Your task to perform on an android device: turn off picture-in-picture Image 0: 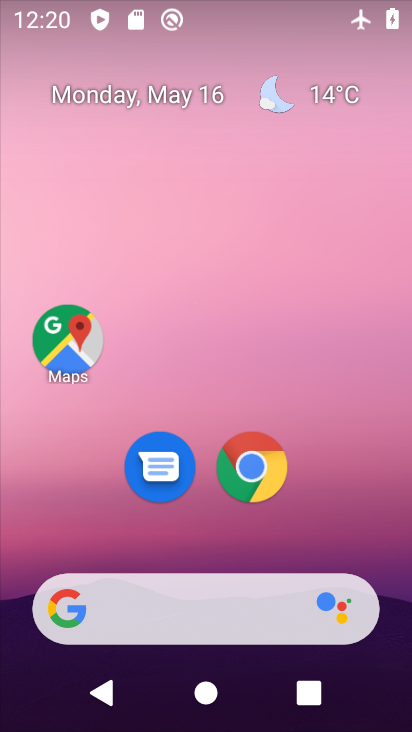
Step 0: drag from (287, 539) to (346, 82)
Your task to perform on an android device: turn off picture-in-picture Image 1: 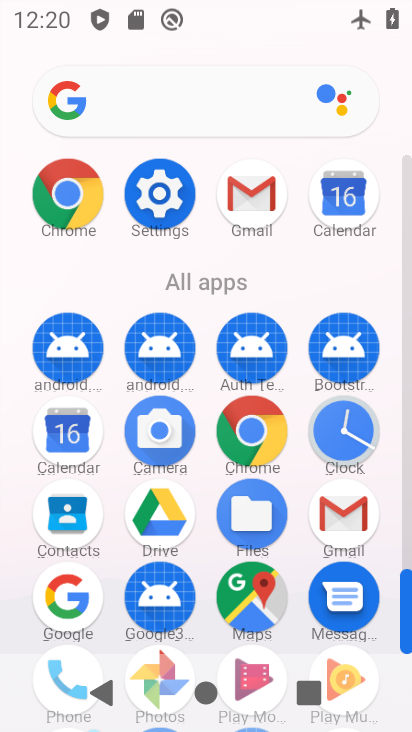
Step 1: click (145, 191)
Your task to perform on an android device: turn off picture-in-picture Image 2: 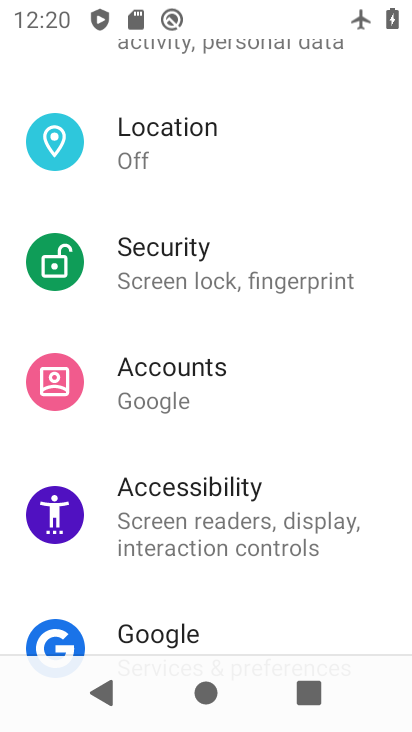
Step 2: drag from (245, 250) to (212, 633)
Your task to perform on an android device: turn off picture-in-picture Image 3: 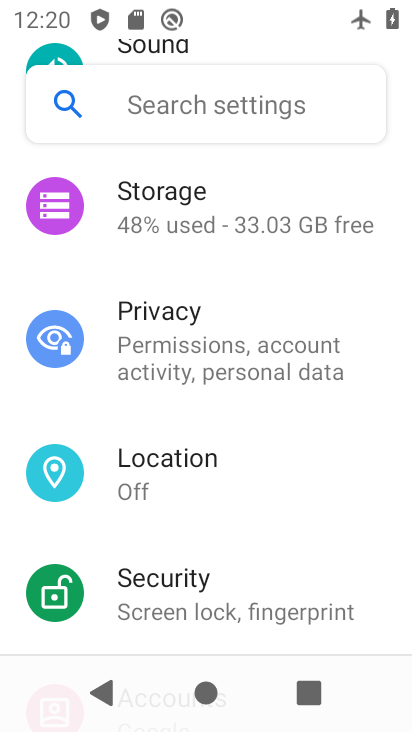
Step 3: drag from (210, 184) to (168, 582)
Your task to perform on an android device: turn off picture-in-picture Image 4: 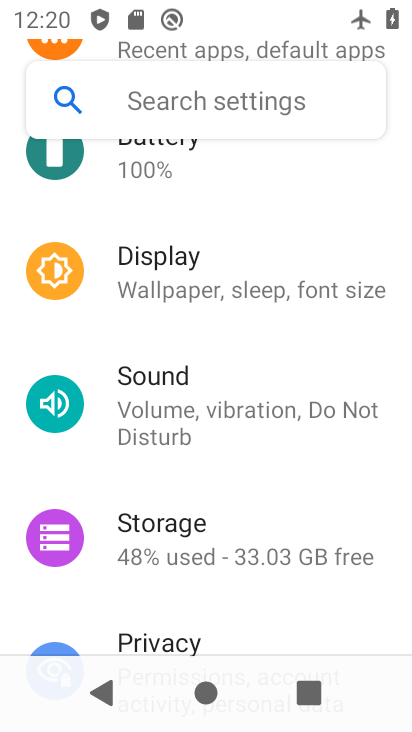
Step 4: drag from (216, 247) to (156, 625)
Your task to perform on an android device: turn off picture-in-picture Image 5: 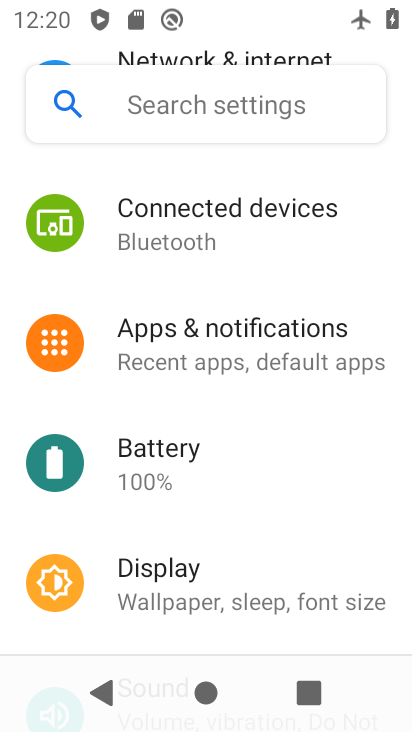
Step 5: drag from (216, 226) to (171, 573)
Your task to perform on an android device: turn off picture-in-picture Image 6: 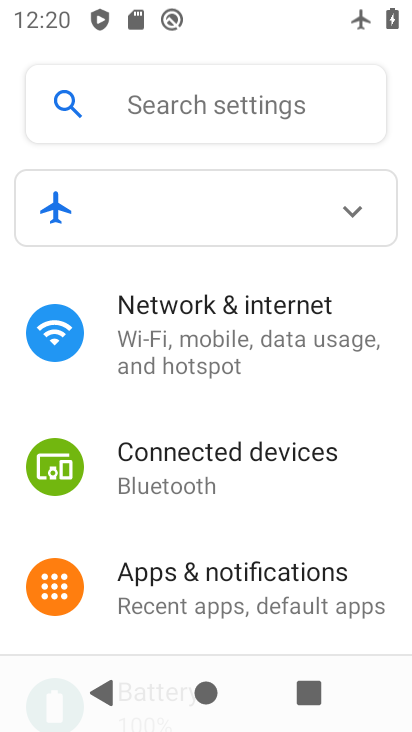
Step 6: click (170, 565)
Your task to perform on an android device: turn off picture-in-picture Image 7: 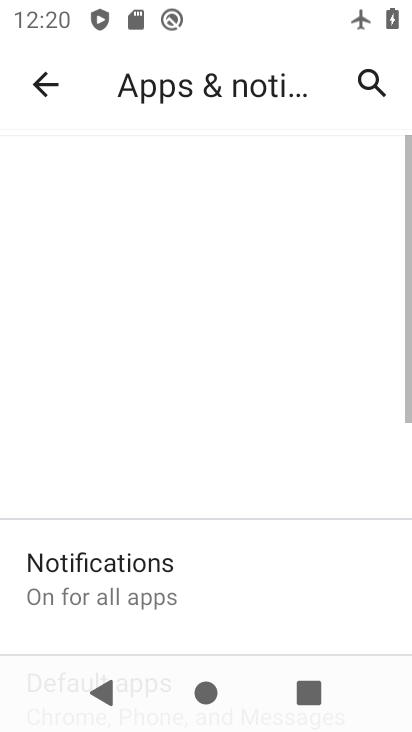
Step 7: drag from (206, 546) to (328, 87)
Your task to perform on an android device: turn off picture-in-picture Image 8: 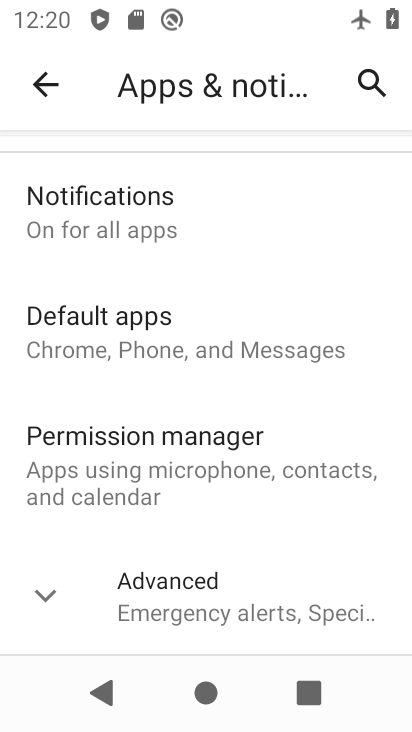
Step 8: click (134, 585)
Your task to perform on an android device: turn off picture-in-picture Image 9: 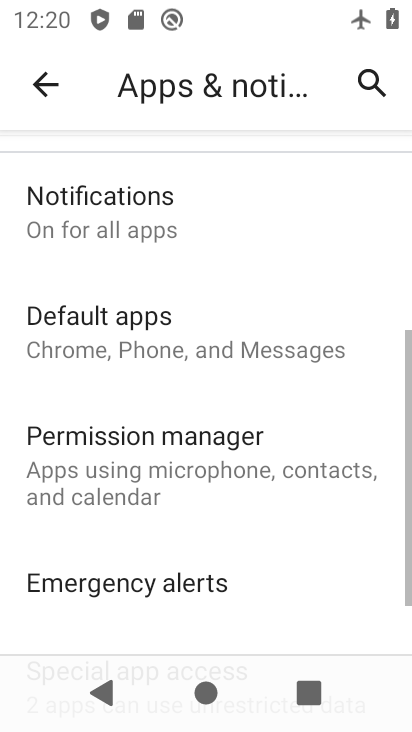
Step 9: drag from (187, 620) to (277, 95)
Your task to perform on an android device: turn off picture-in-picture Image 10: 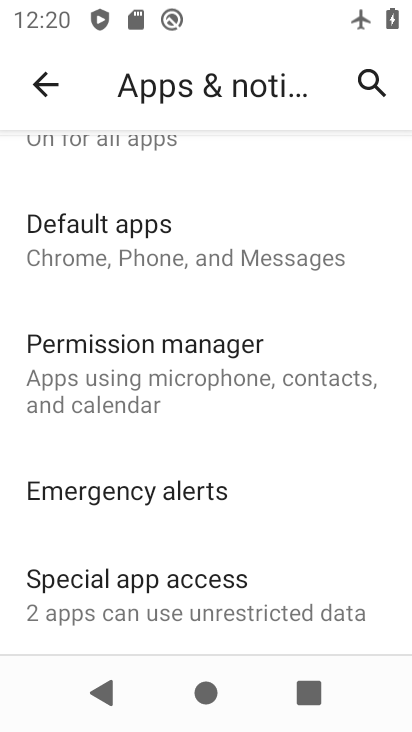
Step 10: click (77, 587)
Your task to perform on an android device: turn off picture-in-picture Image 11: 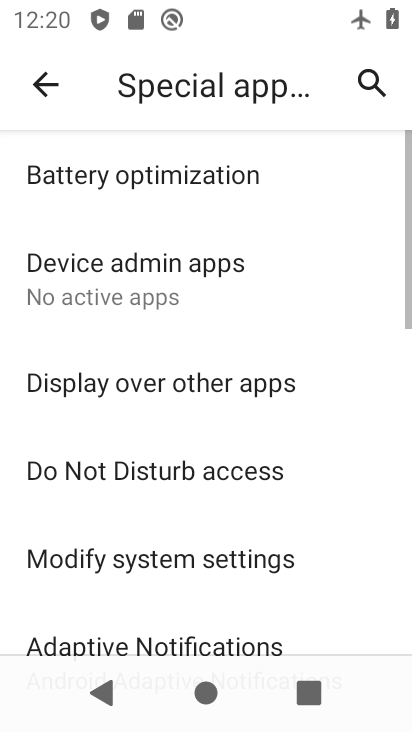
Step 11: drag from (161, 581) to (242, 284)
Your task to perform on an android device: turn off picture-in-picture Image 12: 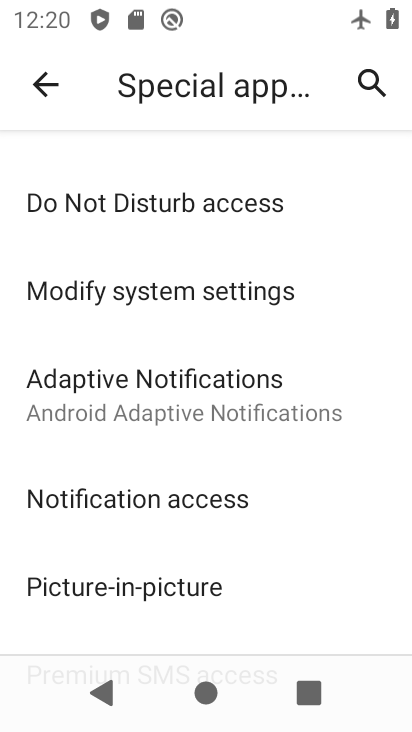
Step 12: click (94, 591)
Your task to perform on an android device: turn off picture-in-picture Image 13: 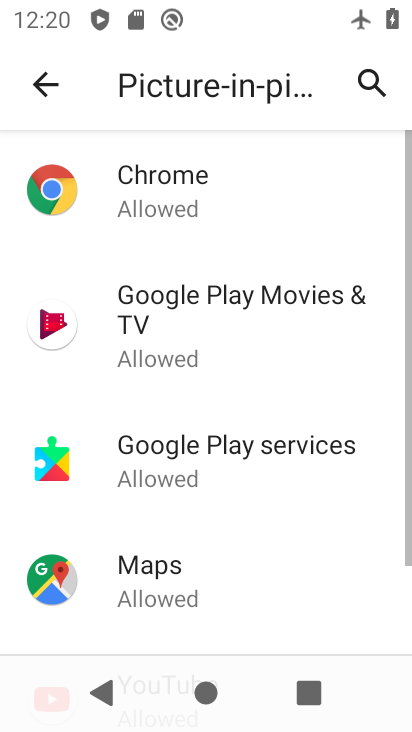
Step 13: drag from (197, 576) to (285, 199)
Your task to perform on an android device: turn off picture-in-picture Image 14: 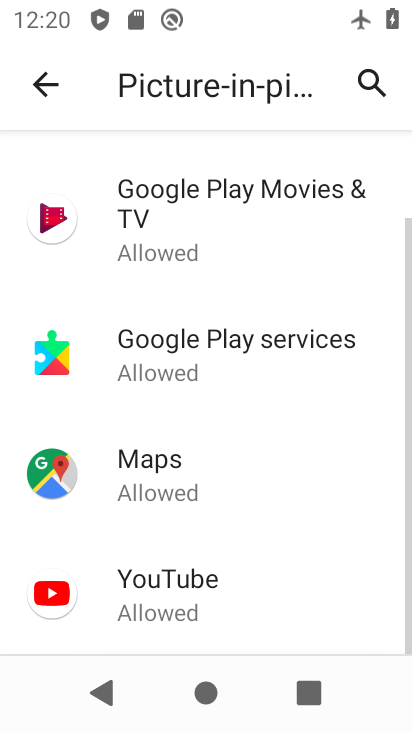
Step 14: click (74, 609)
Your task to perform on an android device: turn off picture-in-picture Image 15: 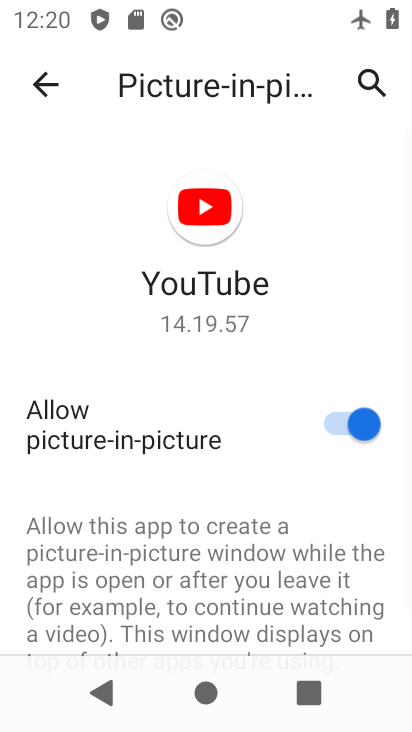
Step 15: click (346, 425)
Your task to perform on an android device: turn off picture-in-picture Image 16: 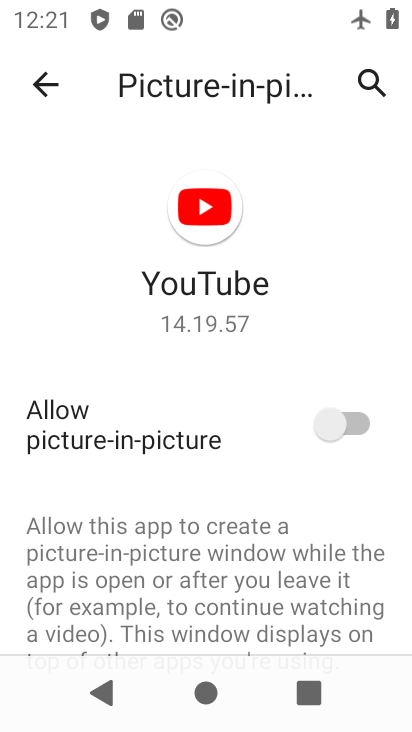
Step 16: task complete